Your task to perform on an android device: Do I have any events today? Image 0: 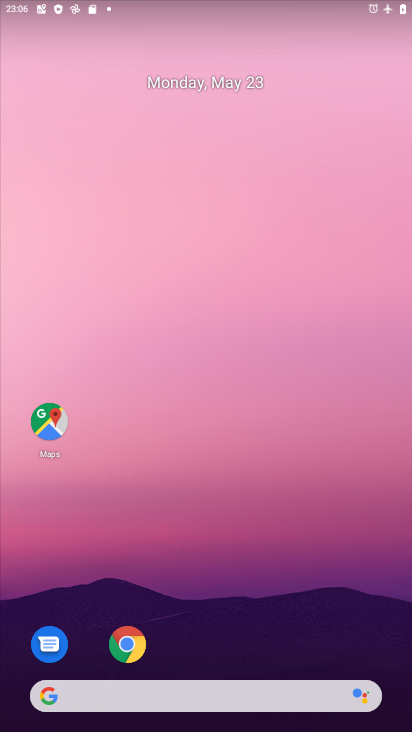
Step 0: drag from (224, 730) to (214, 7)
Your task to perform on an android device: Do I have any events today? Image 1: 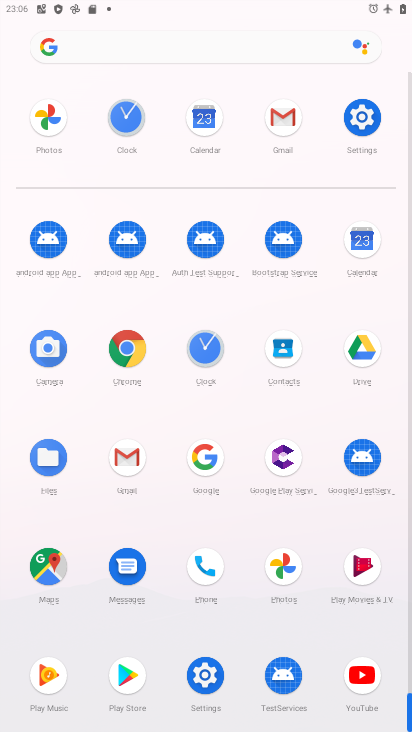
Step 1: click (354, 249)
Your task to perform on an android device: Do I have any events today? Image 2: 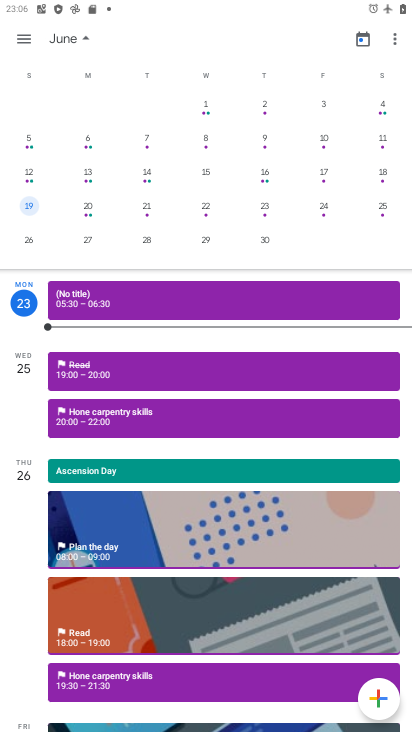
Step 2: drag from (42, 140) to (365, 233)
Your task to perform on an android device: Do I have any events today? Image 3: 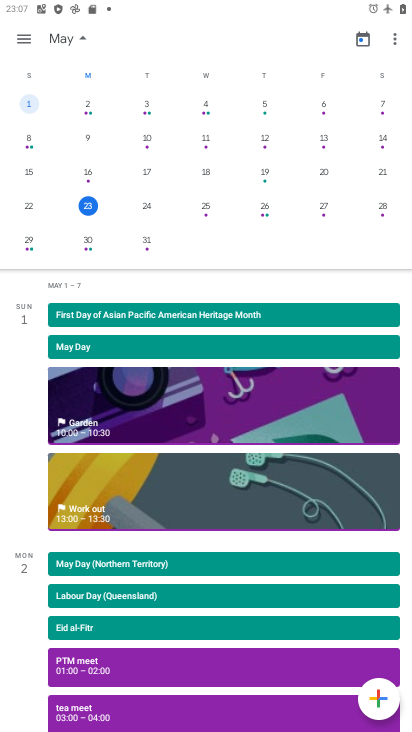
Step 3: click (86, 206)
Your task to perform on an android device: Do I have any events today? Image 4: 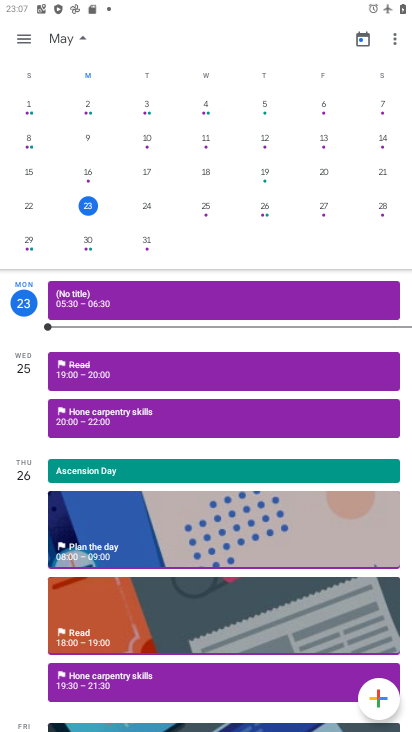
Step 4: task complete